Your task to perform on an android device: Go to CNN.com Image 0: 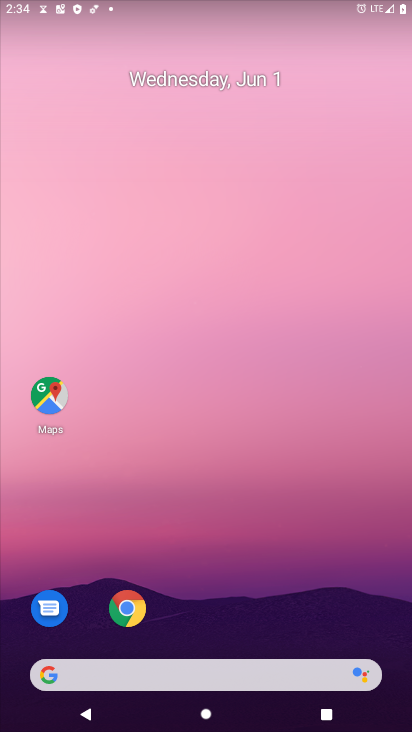
Step 0: click (133, 612)
Your task to perform on an android device: Go to CNN.com Image 1: 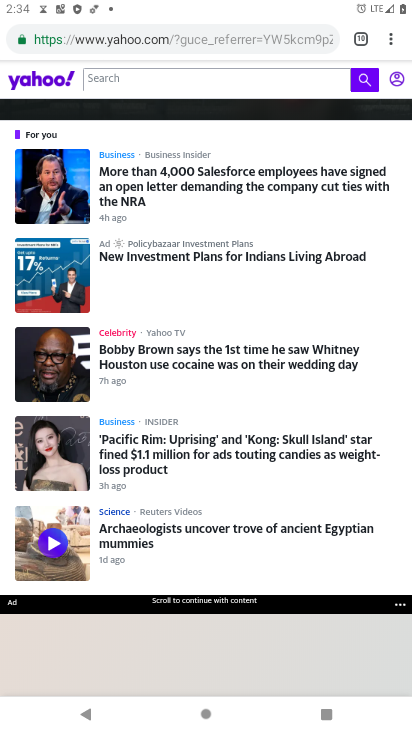
Step 1: click (355, 38)
Your task to perform on an android device: Go to CNN.com Image 2: 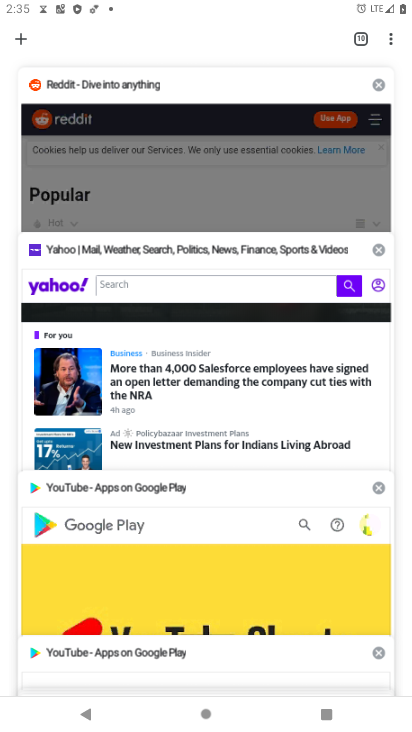
Step 2: drag from (116, 590) to (133, 324)
Your task to perform on an android device: Go to CNN.com Image 3: 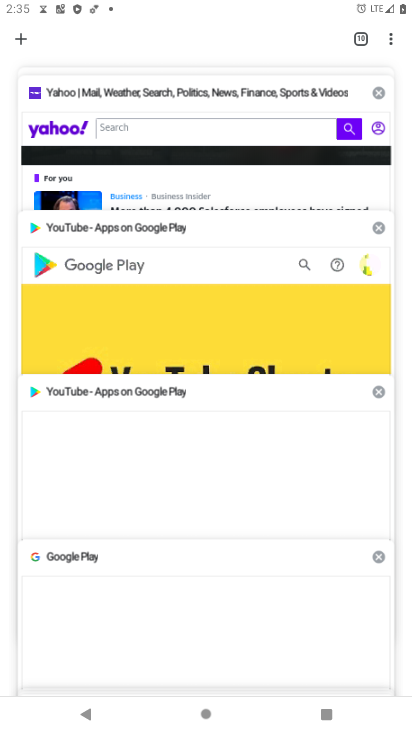
Step 3: drag from (166, 184) to (152, 656)
Your task to perform on an android device: Go to CNN.com Image 4: 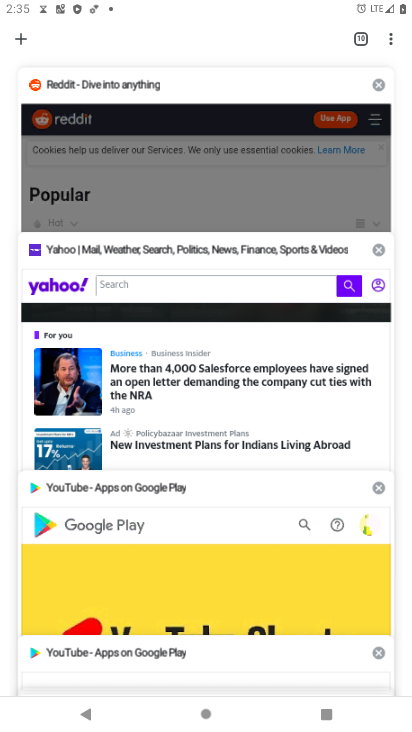
Step 4: drag from (227, 147) to (201, 652)
Your task to perform on an android device: Go to CNN.com Image 5: 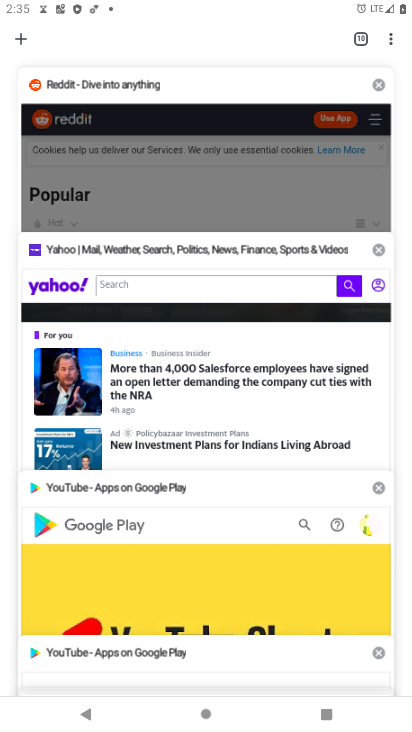
Step 5: drag from (140, 554) to (188, 183)
Your task to perform on an android device: Go to CNN.com Image 6: 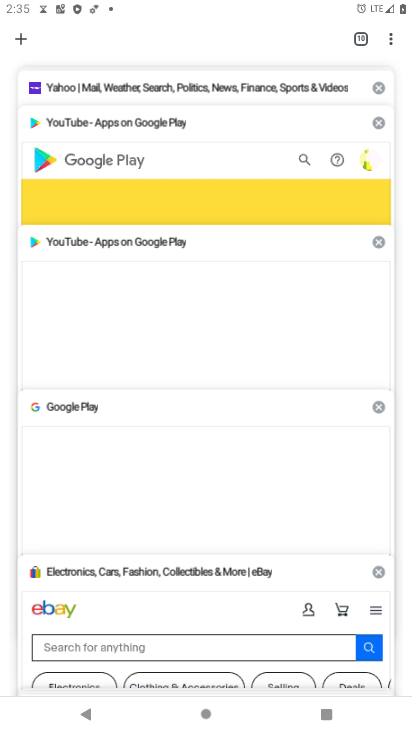
Step 6: drag from (116, 518) to (169, 196)
Your task to perform on an android device: Go to CNN.com Image 7: 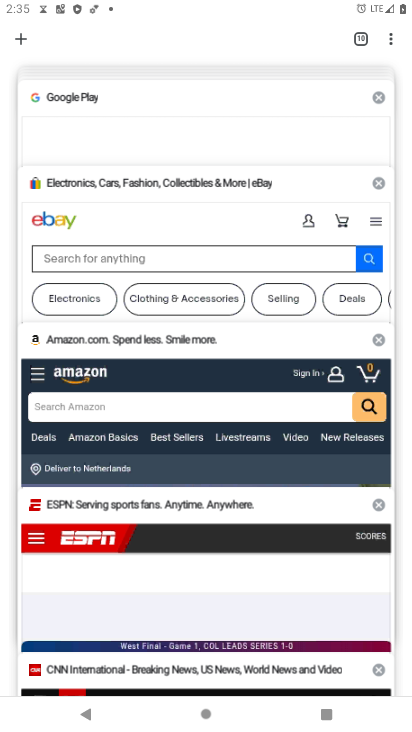
Step 7: drag from (131, 603) to (170, 291)
Your task to perform on an android device: Go to CNN.com Image 8: 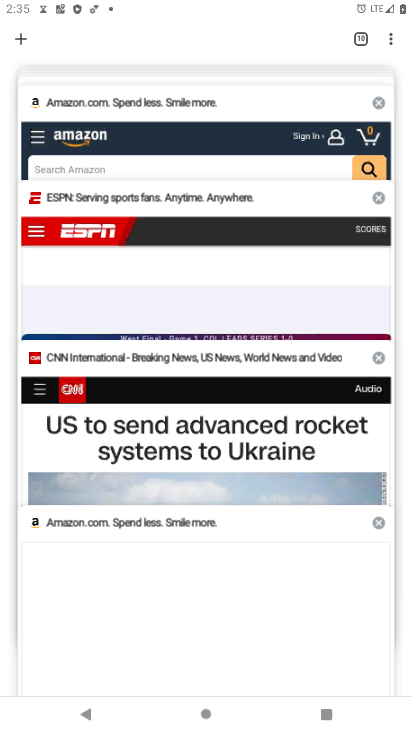
Step 8: click (129, 374)
Your task to perform on an android device: Go to CNN.com Image 9: 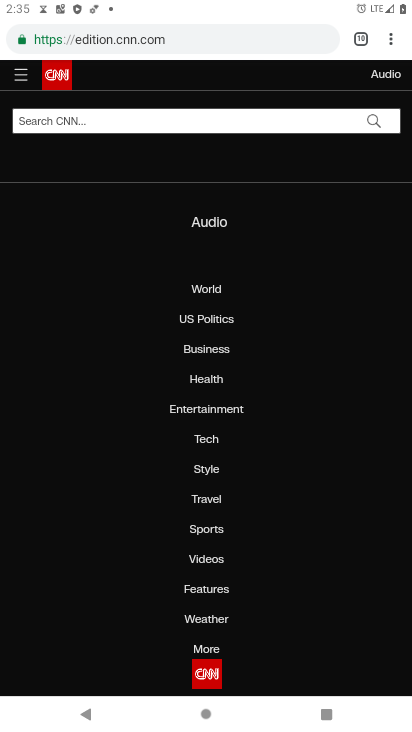
Step 9: task complete